Your task to perform on an android device: What's the weather today? Image 0: 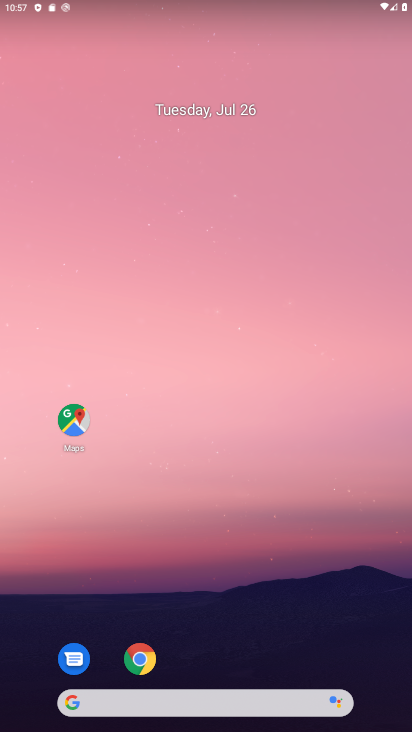
Step 0: click (146, 697)
Your task to perform on an android device: What's the weather today? Image 1: 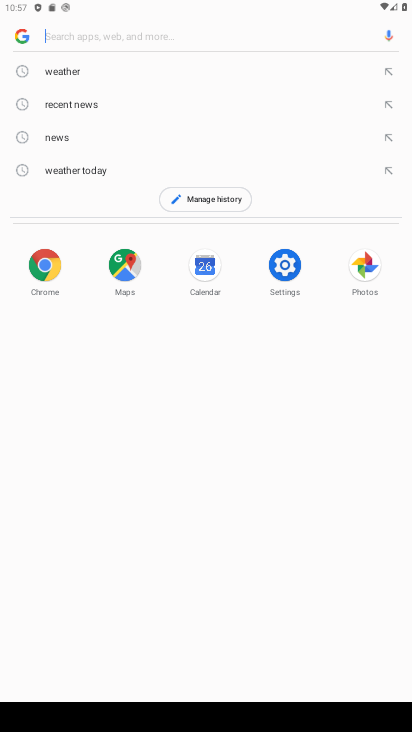
Step 1: click (49, 66)
Your task to perform on an android device: What's the weather today? Image 2: 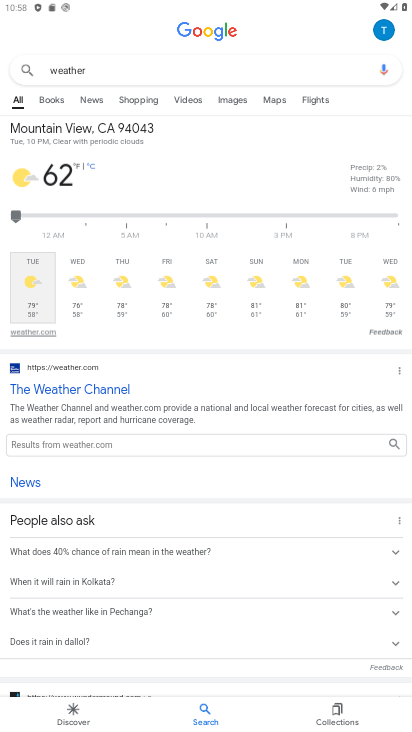
Step 2: task complete